Your task to perform on an android device: Open calendar and show me the first week of next month Image 0: 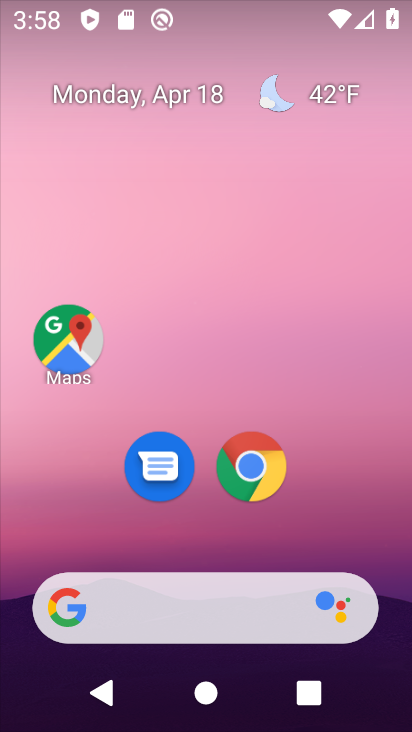
Step 0: drag from (397, 603) to (370, 105)
Your task to perform on an android device: Open calendar and show me the first week of next month Image 1: 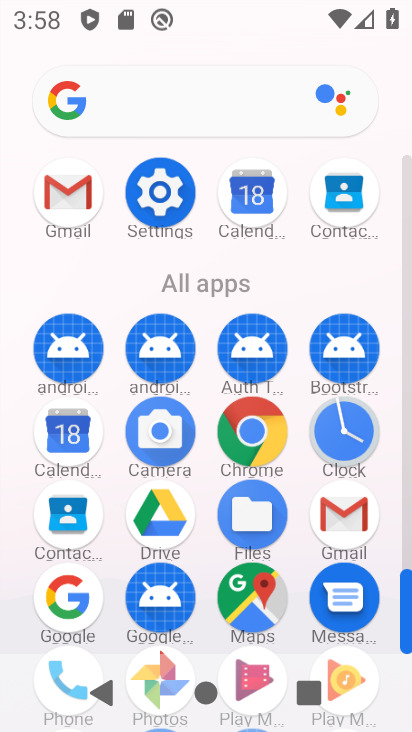
Step 1: drag from (405, 599) to (403, 660)
Your task to perform on an android device: Open calendar and show me the first week of next month Image 2: 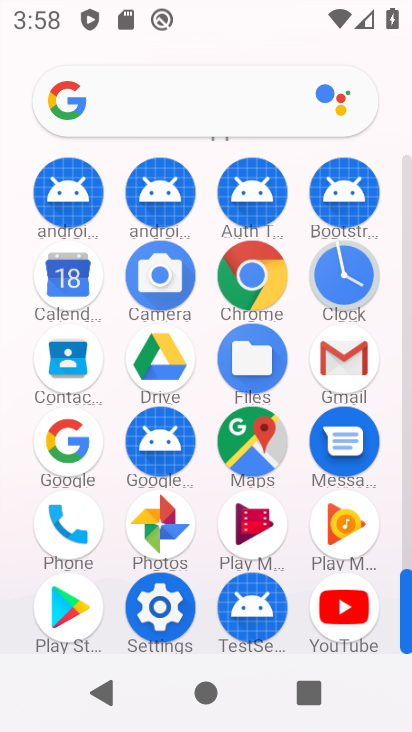
Step 2: click (65, 278)
Your task to perform on an android device: Open calendar and show me the first week of next month Image 3: 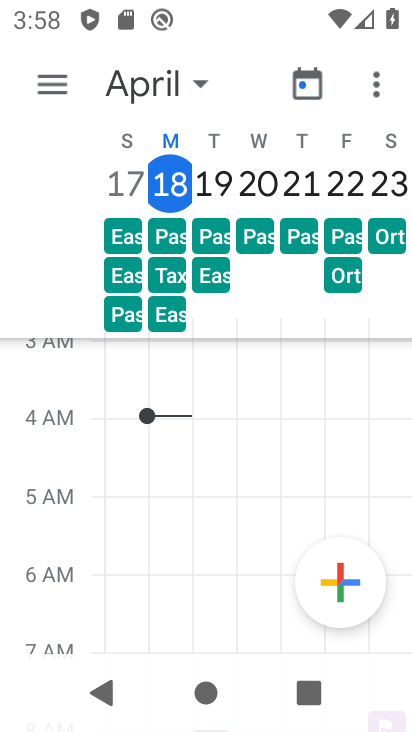
Step 3: click (56, 83)
Your task to perform on an android device: Open calendar and show me the first week of next month Image 4: 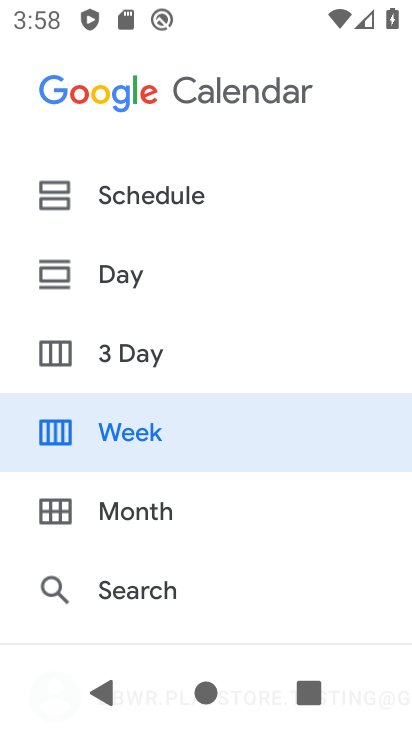
Step 4: click (143, 435)
Your task to perform on an android device: Open calendar and show me the first week of next month Image 5: 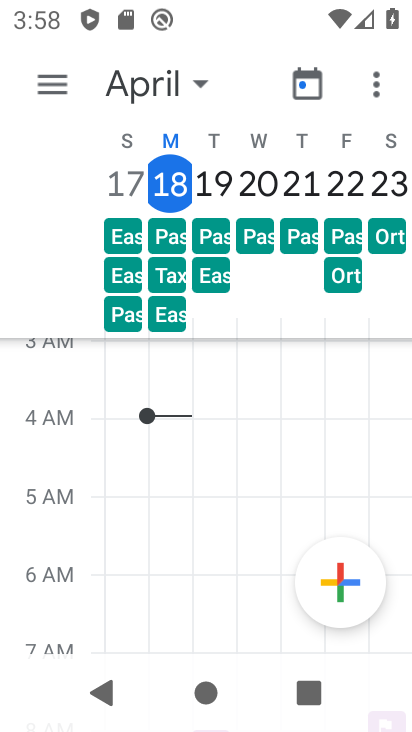
Step 5: click (199, 81)
Your task to perform on an android device: Open calendar and show me the first week of next month Image 6: 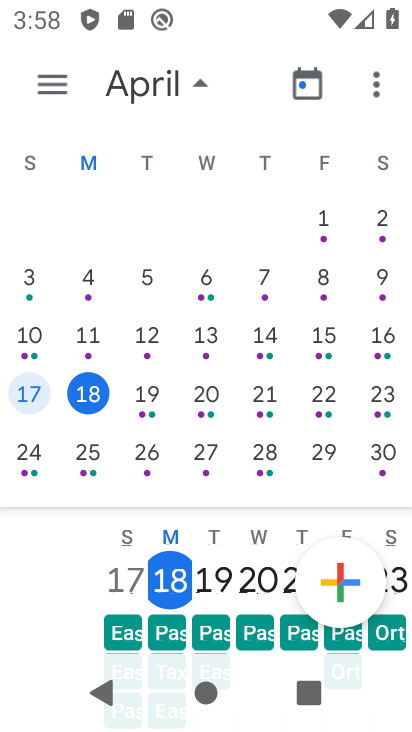
Step 6: task complete